Your task to perform on an android device: delete browsing data in the chrome app Image 0: 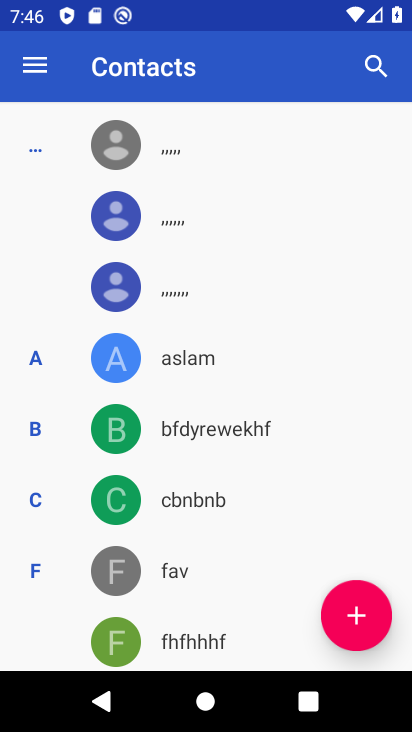
Step 0: press home button
Your task to perform on an android device: delete browsing data in the chrome app Image 1: 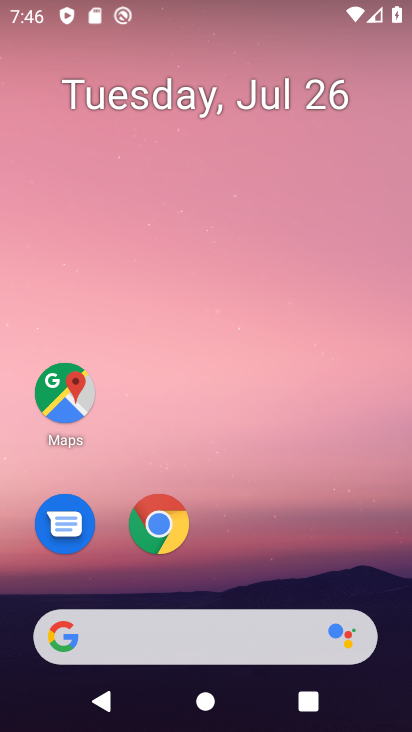
Step 1: click (167, 525)
Your task to perform on an android device: delete browsing data in the chrome app Image 2: 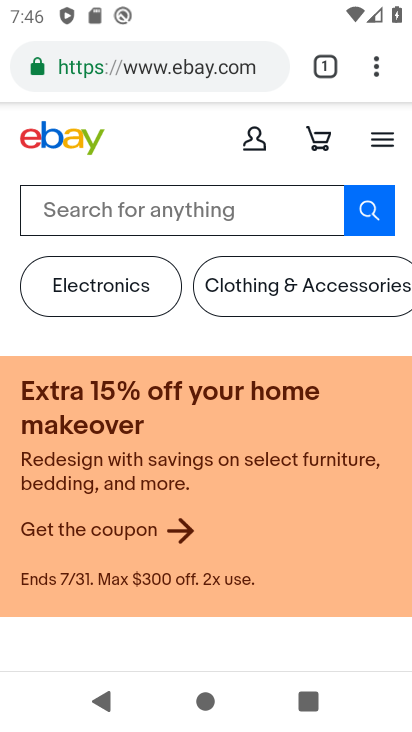
Step 2: click (376, 64)
Your task to perform on an android device: delete browsing data in the chrome app Image 3: 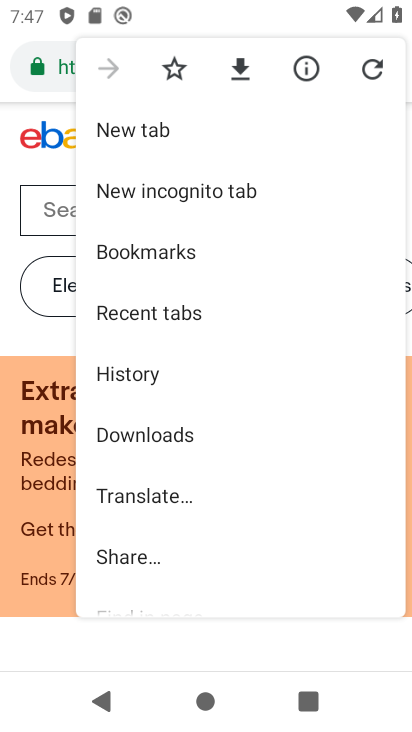
Step 3: click (148, 367)
Your task to perform on an android device: delete browsing data in the chrome app Image 4: 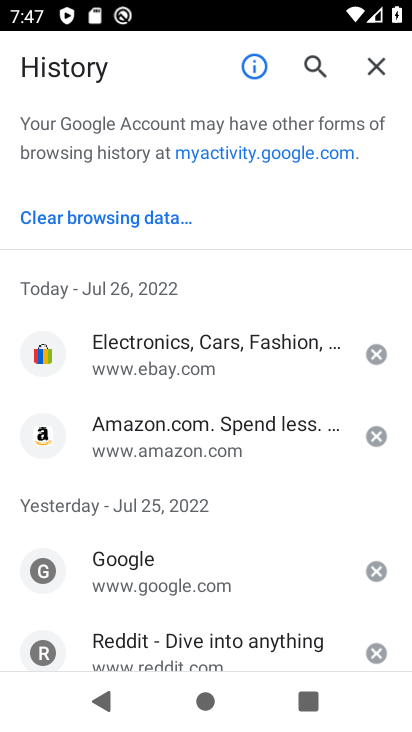
Step 4: click (122, 214)
Your task to perform on an android device: delete browsing data in the chrome app Image 5: 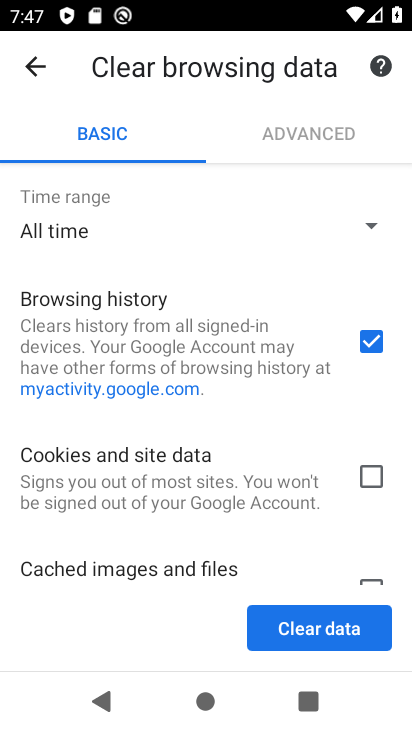
Step 5: click (369, 472)
Your task to perform on an android device: delete browsing data in the chrome app Image 6: 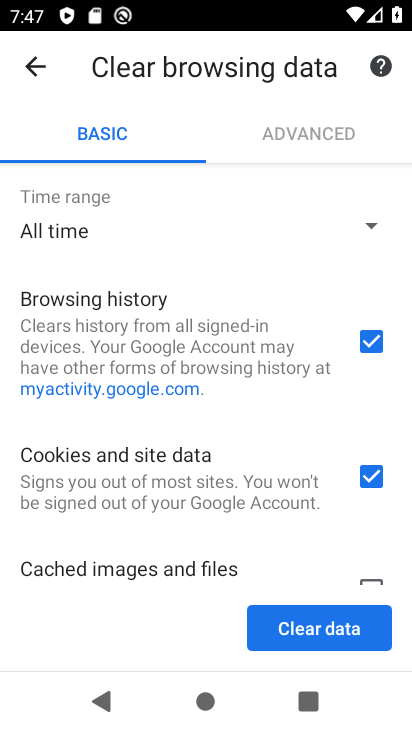
Step 6: drag from (263, 550) to (285, 350)
Your task to perform on an android device: delete browsing data in the chrome app Image 7: 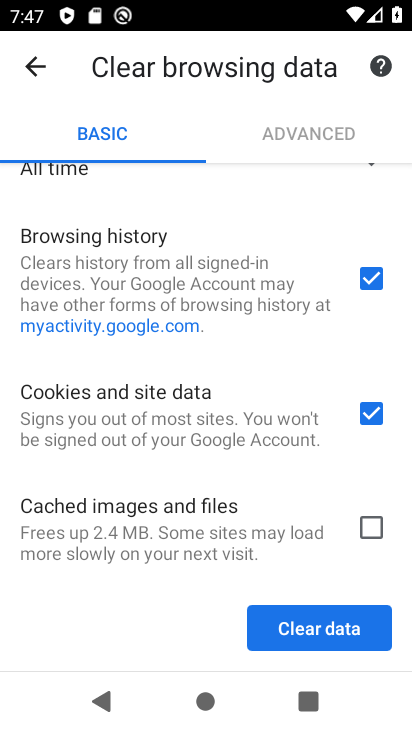
Step 7: click (366, 522)
Your task to perform on an android device: delete browsing data in the chrome app Image 8: 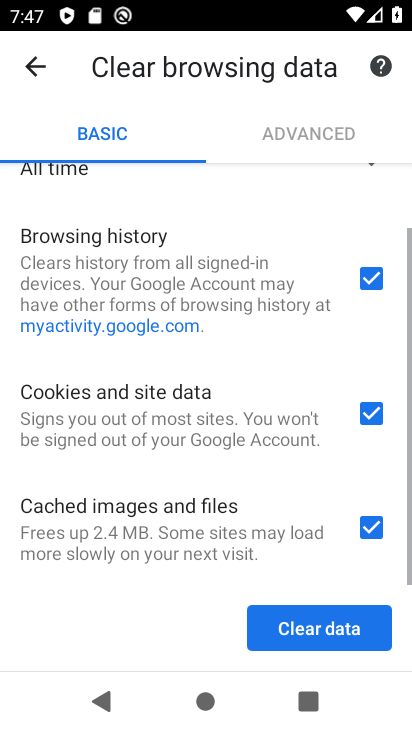
Step 8: click (341, 628)
Your task to perform on an android device: delete browsing data in the chrome app Image 9: 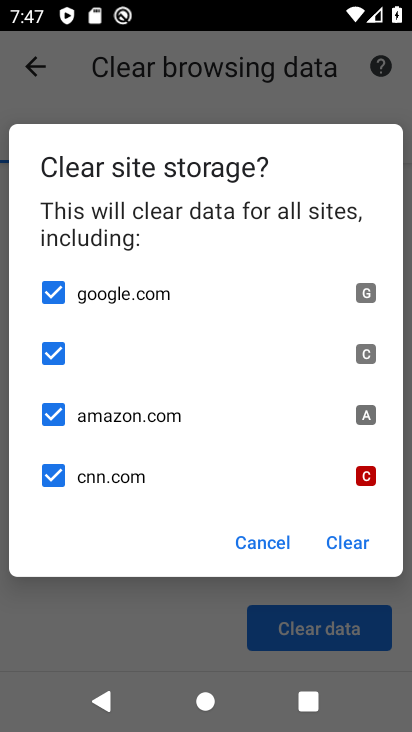
Step 9: click (347, 539)
Your task to perform on an android device: delete browsing data in the chrome app Image 10: 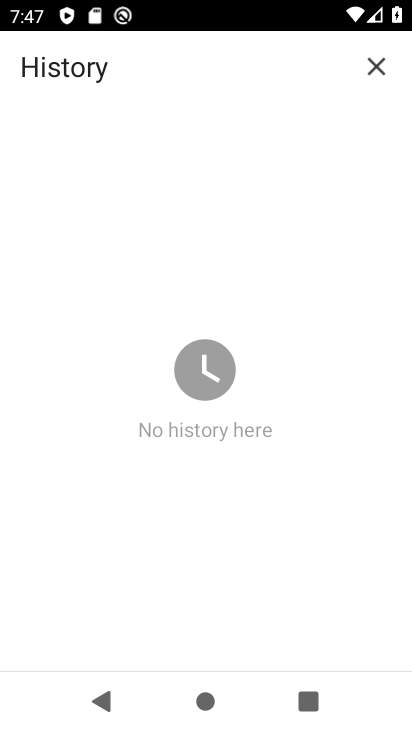
Step 10: task complete